Your task to perform on an android device: Open calendar and show me the third week of next month Image 0: 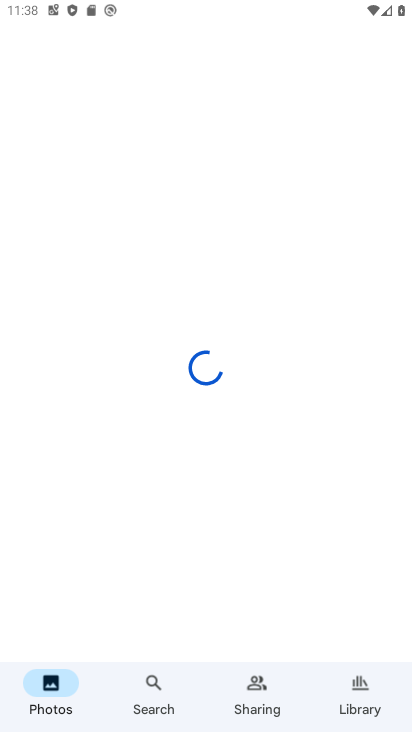
Step 0: drag from (186, 676) to (183, 619)
Your task to perform on an android device: Open calendar and show me the third week of next month Image 1: 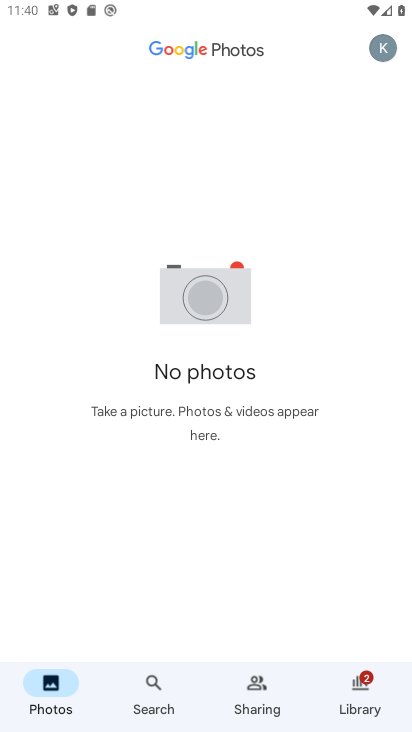
Step 1: press home button
Your task to perform on an android device: Open calendar and show me the third week of next month Image 2: 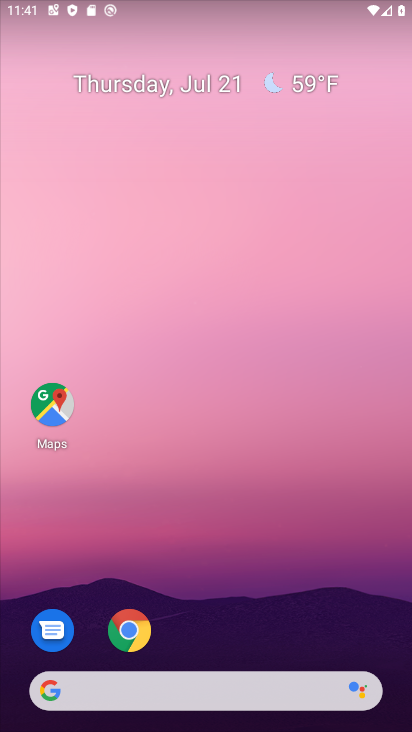
Step 2: drag from (163, 669) to (160, 225)
Your task to perform on an android device: Open calendar and show me the third week of next month Image 3: 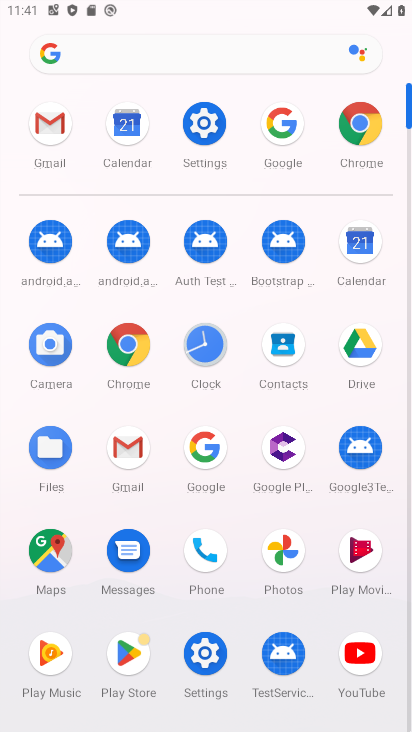
Step 3: click (366, 249)
Your task to perform on an android device: Open calendar and show me the third week of next month Image 4: 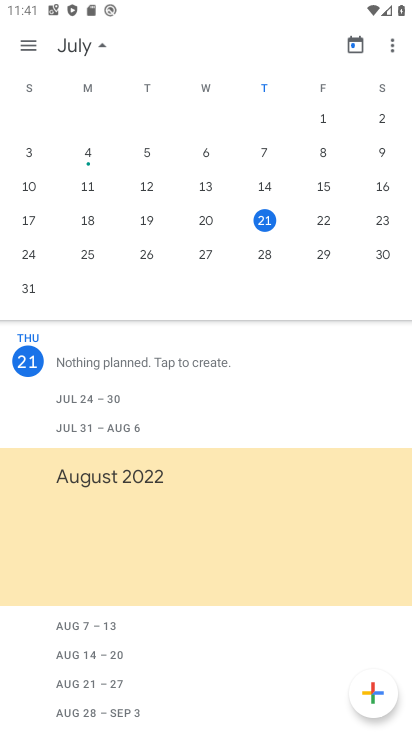
Step 4: drag from (359, 236) to (16, 308)
Your task to perform on an android device: Open calendar and show me the third week of next month Image 5: 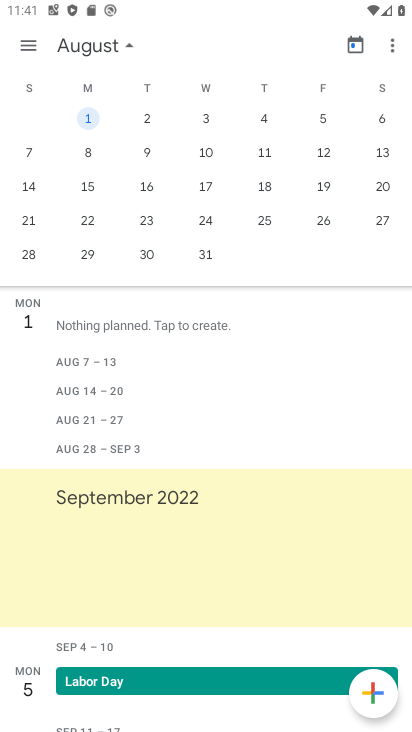
Step 5: click (27, 182)
Your task to perform on an android device: Open calendar and show me the third week of next month Image 6: 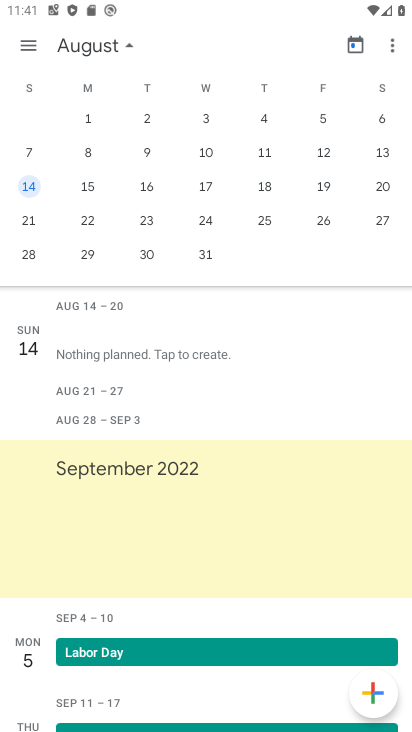
Step 6: task complete